Your task to perform on an android device: Go to accessibility settings Image 0: 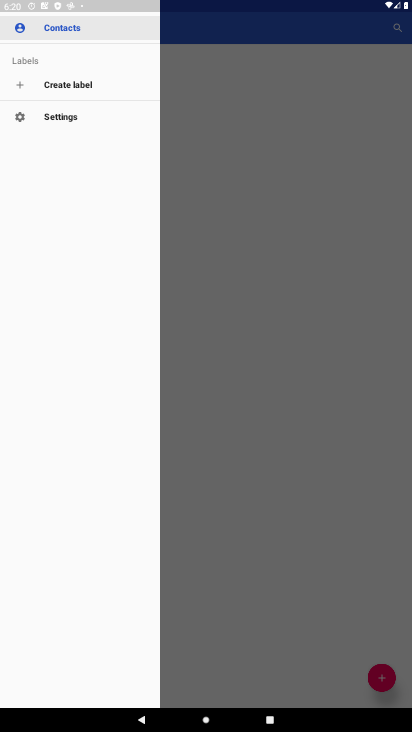
Step 0: drag from (383, 667) to (350, 325)
Your task to perform on an android device: Go to accessibility settings Image 1: 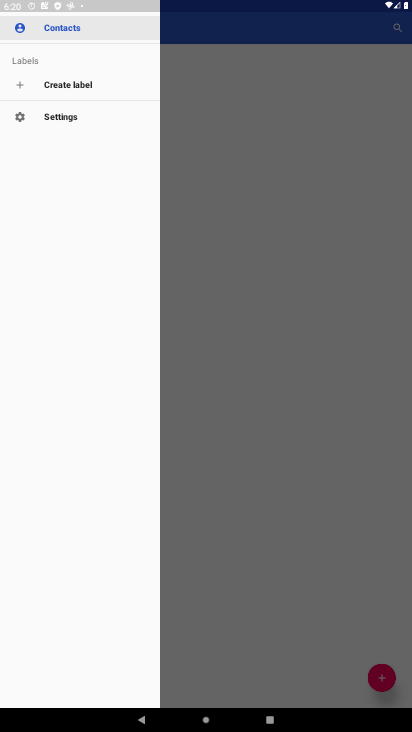
Step 1: press home button
Your task to perform on an android device: Go to accessibility settings Image 2: 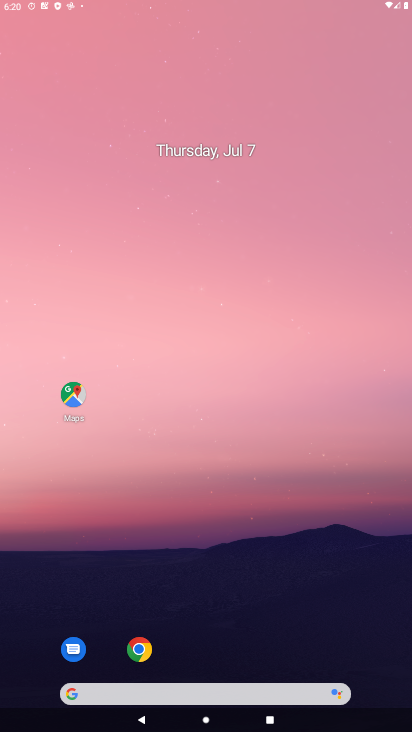
Step 2: drag from (380, 670) to (254, 0)
Your task to perform on an android device: Go to accessibility settings Image 3: 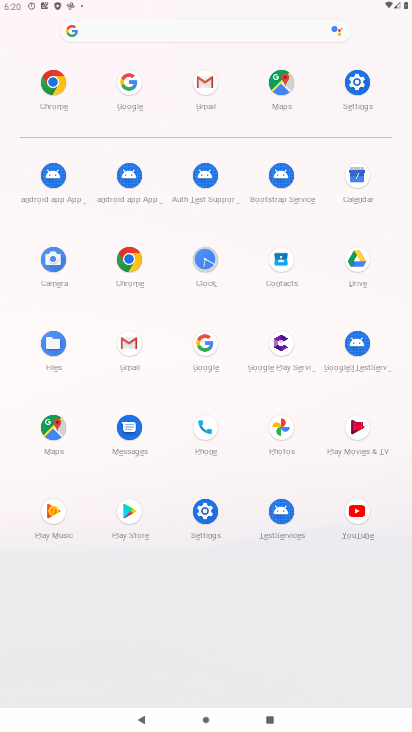
Step 3: click (351, 101)
Your task to perform on an android device: Go to accessibility settings Image 4: 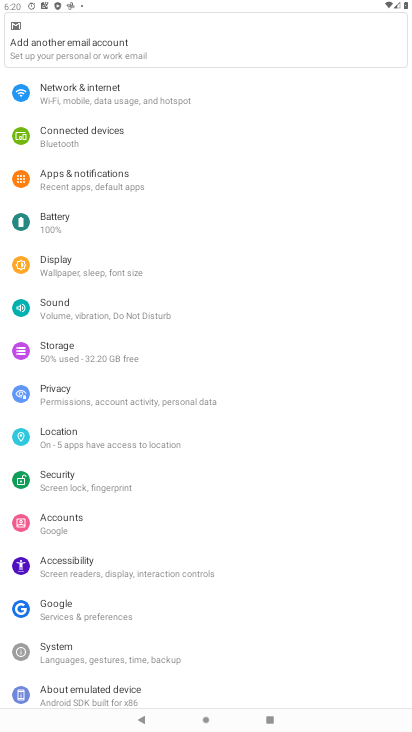
Step 4: click (63, 552)
Your task to perform on an android device: Go to accessibility settings Image 5: 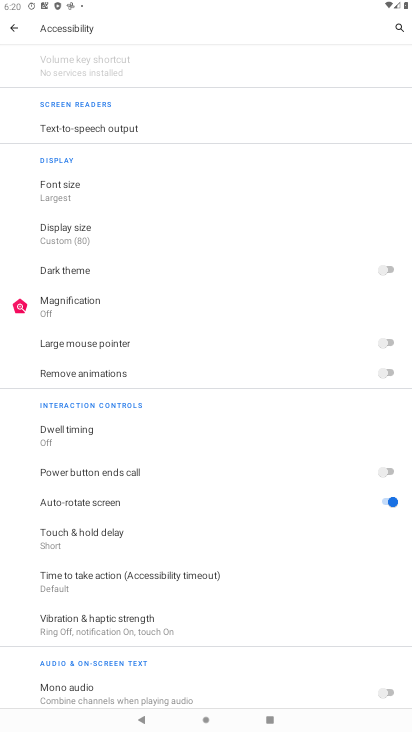
Step 5: task complete